Your task to perform on an android device: turn off location history Image 0: 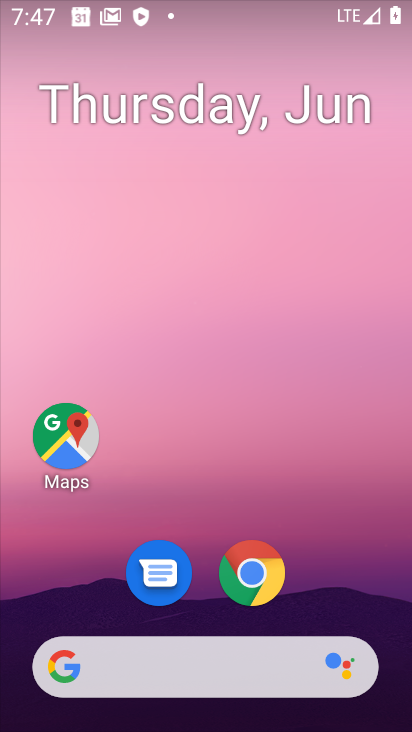
Step 0: drag from (306, 568) to (291, 299)
Your task to perform on an android device: turn off location history Image 1: 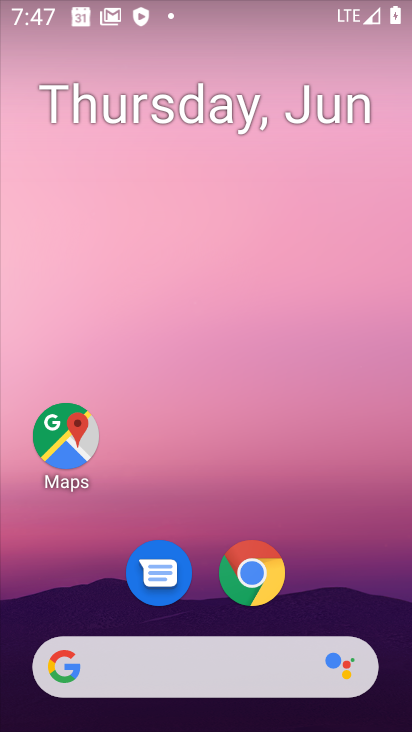
Step 1: drag from (327, 603) to (292, 279)
Your task to perform on an android device: turn off location history Image 2: 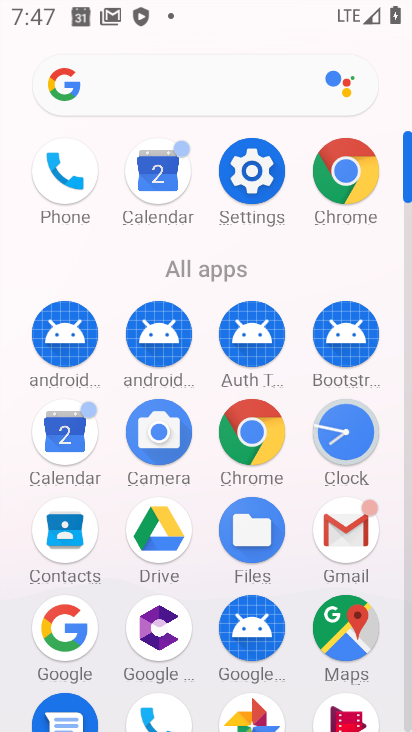
Step 2: click (237, 174)
Your task to perform on an android device: turn off location history Image 3: 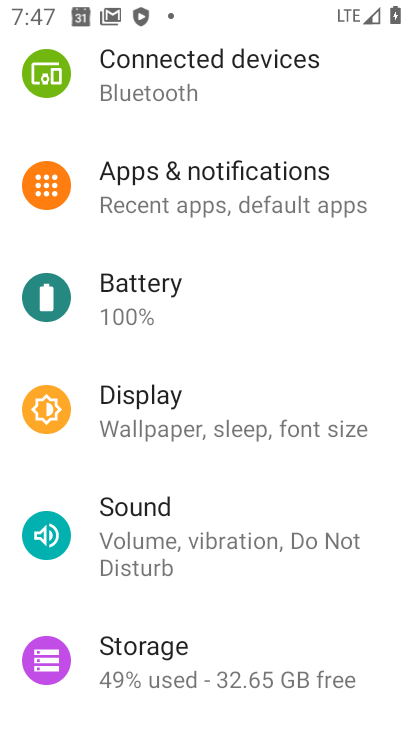
Step 3: drag from (255, 629) to (236, 204)
Your task to perform on an android device: turn off location history Image 4: 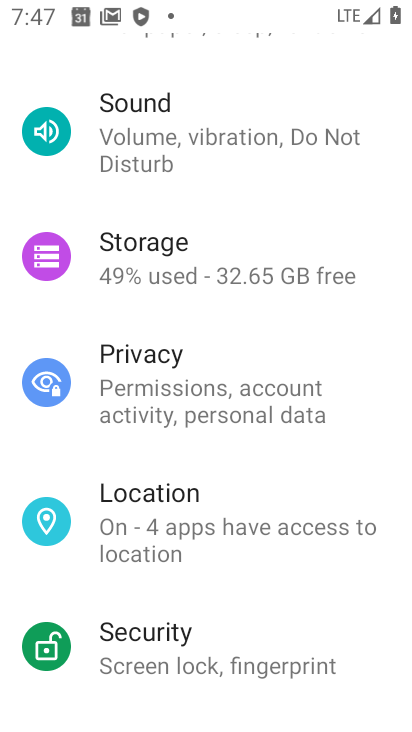
Step 4: click (159, 508)
Your task to perform on an android device: turn off location history Image 5: 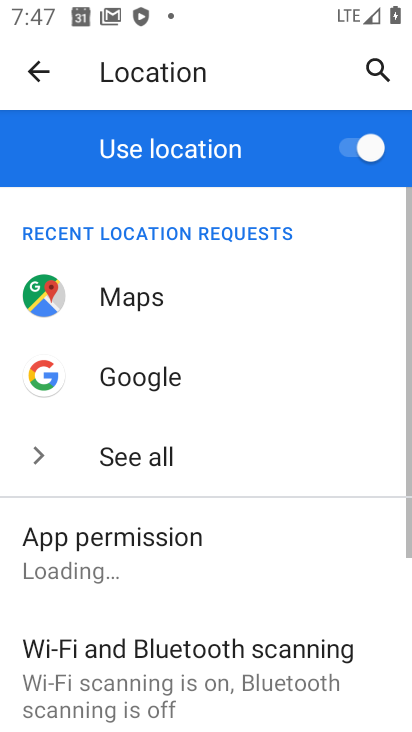
Step 5: drag from (211, 617) to (213, 440)
Your task to perform on an android device: turn off location history Image 6: 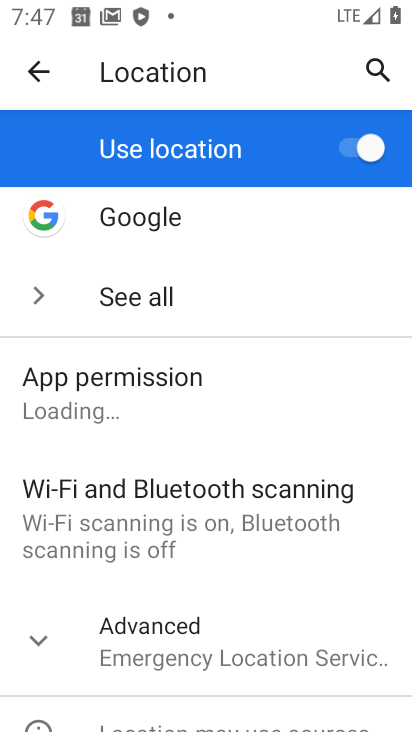
Step 6: click (161, 631)
Your task to perform on an android device: turn off location history Image 7: 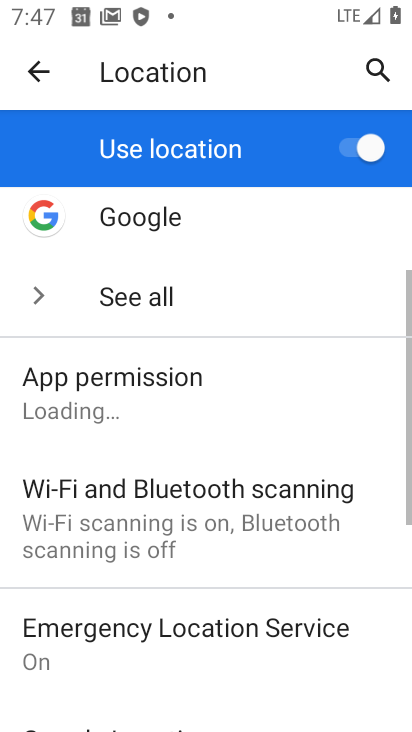
Step 7: drag from (243, 622) to (260, 288)
Your task to perform on an android device: turn off location history Image 8: 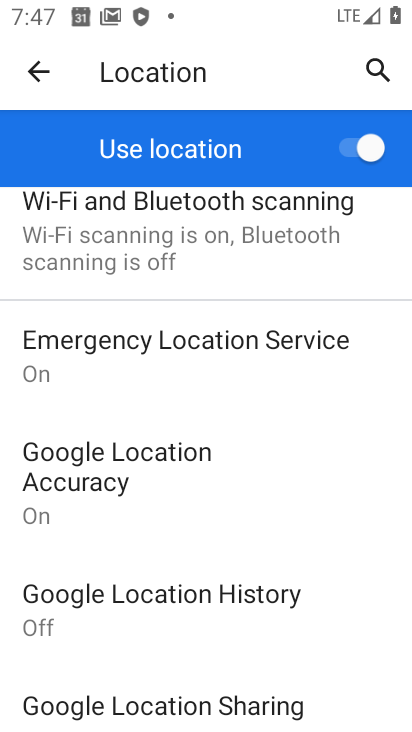
Step 8: click (255, 590)
Your task to perform on an android device: turn off location history Image 9: 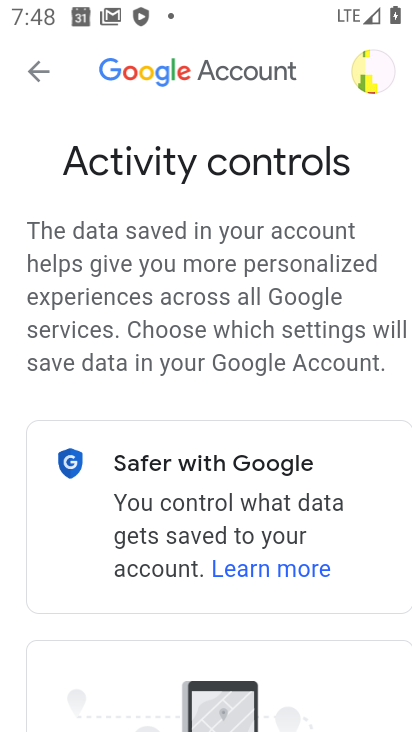
Step 9: task complete